Your task to perform on an android device: add a label to a message in the gmail app Image 0: 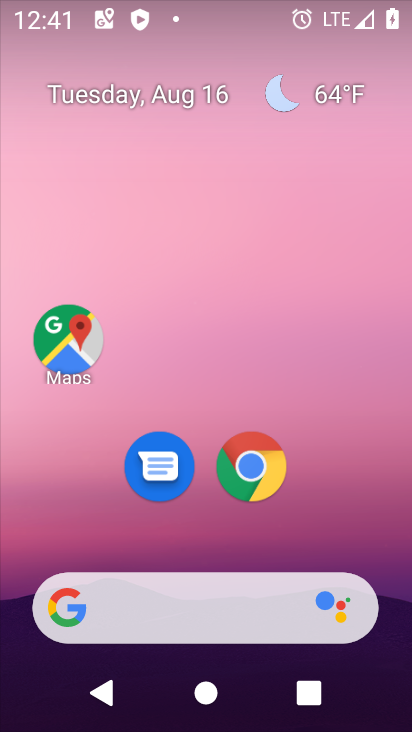
Step 0: drag from (193, 544) to (175, 162)
Your task to perform on an android device: add a label to a message in the gmail app Image 1: 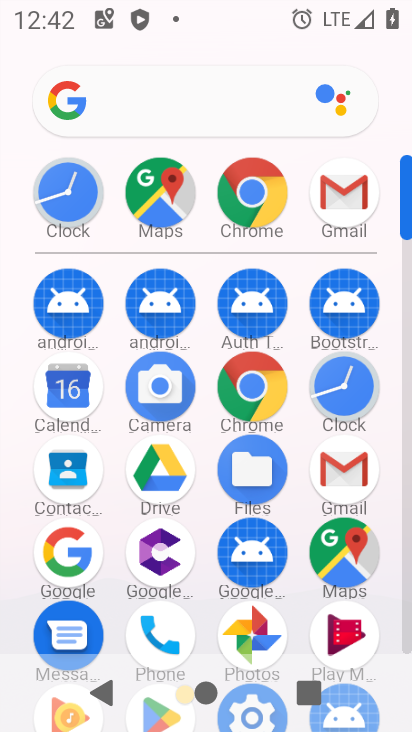
Step 1: click (341, 470)
Your task to perform on an android device: add a label to a message in the gmail app Image 2: 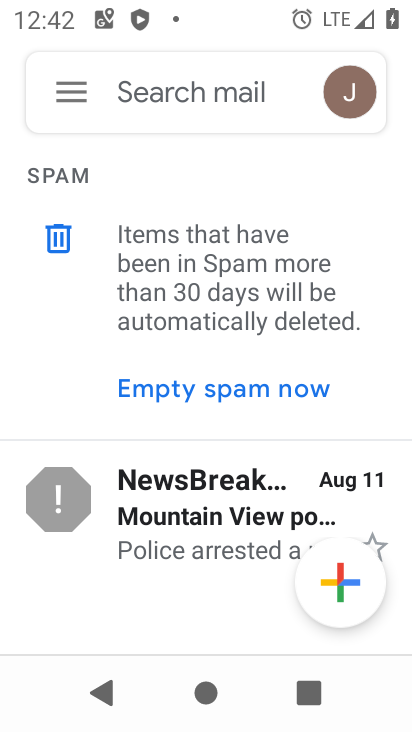
Step 2: click (174, 481)
Your task to perform on an android device: add a label to a message in the gmail app Image 3: 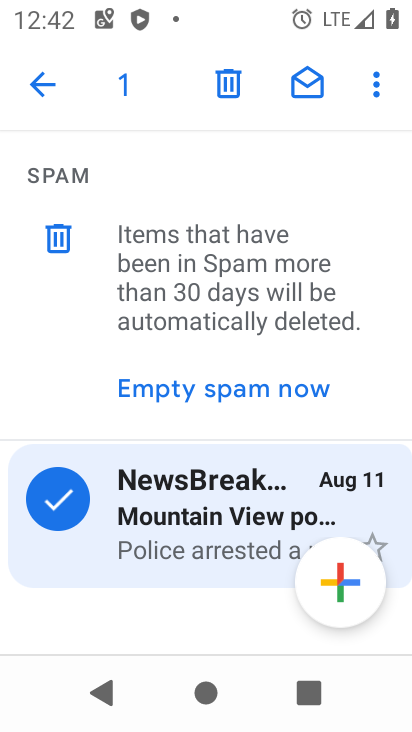
Step 3: click (372, 83)
Your task to perform on an android device: add a label to a message in the gmail app Image 4: 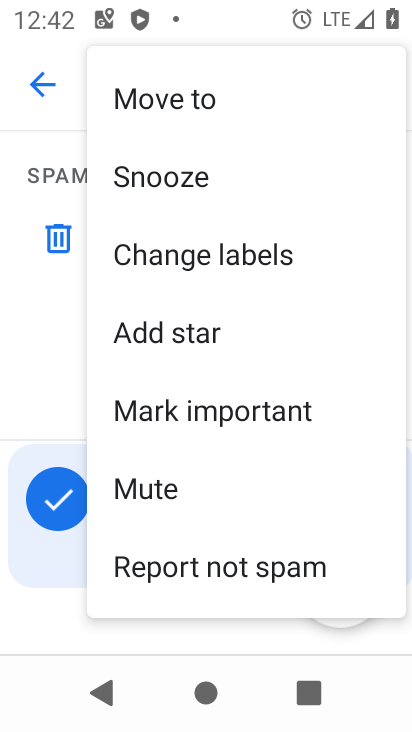
Step 4: click (190, 101)
Your task to perform on an android device: add a label to a message in the gmail app Image 5: 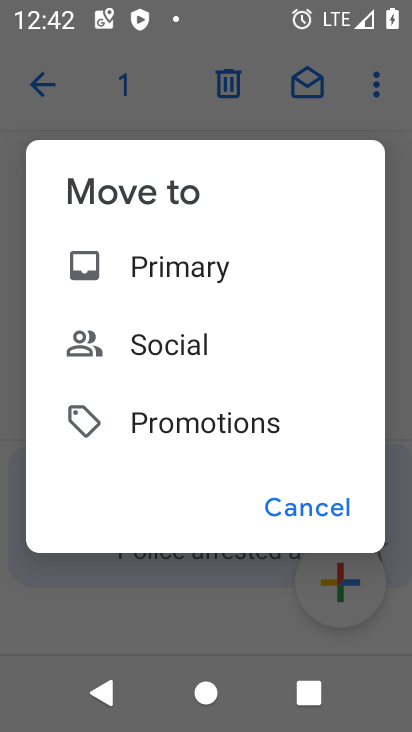
Step 5: click (182, 281)
Your task to perform on an android device: add a label to a message in the gmail app Image 6: 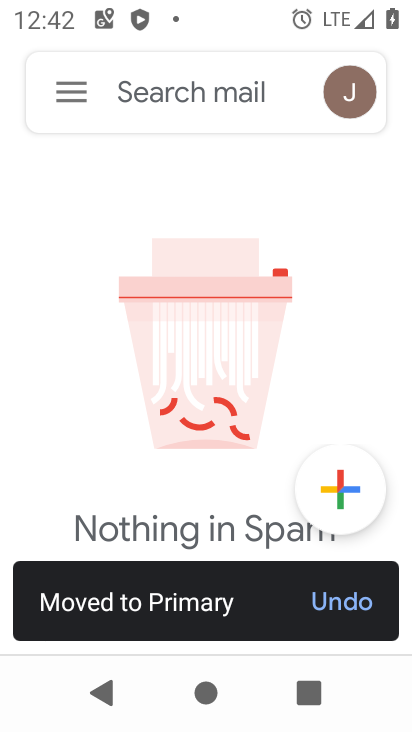
Step 6: task complete